Your task to perform on an android device: change the clock display to digital Image 0: 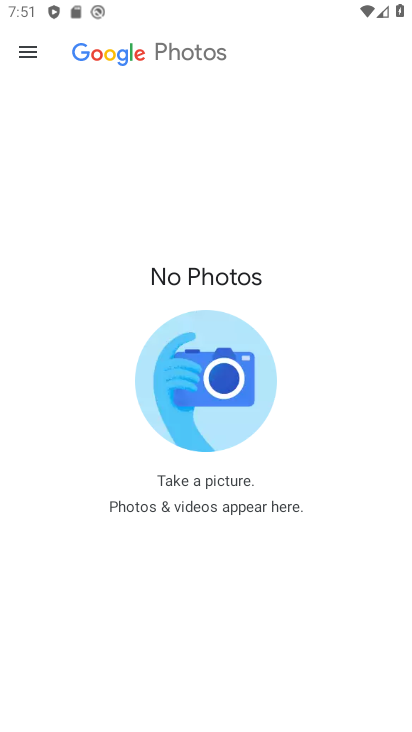
Step 0: press home button
Your task to perform on an android device: change the clock display to digital Image 1: 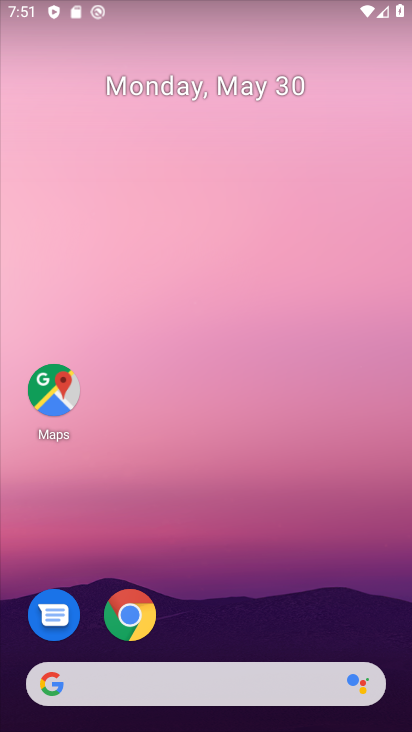
Step 1: drag from (223, 14) to (169, 334)
Your task to perform on an android device: change the clock display to digital Image 2: 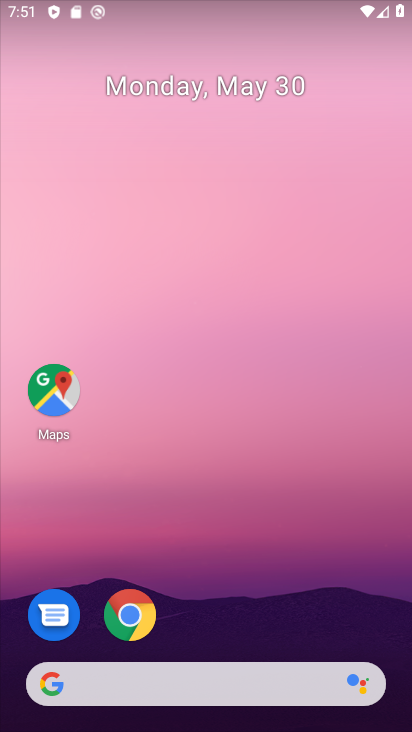
Step 2: drag from (232, 8) to (145, 519)
Your task to perform on an android device: change the clock display to digital Image 3: 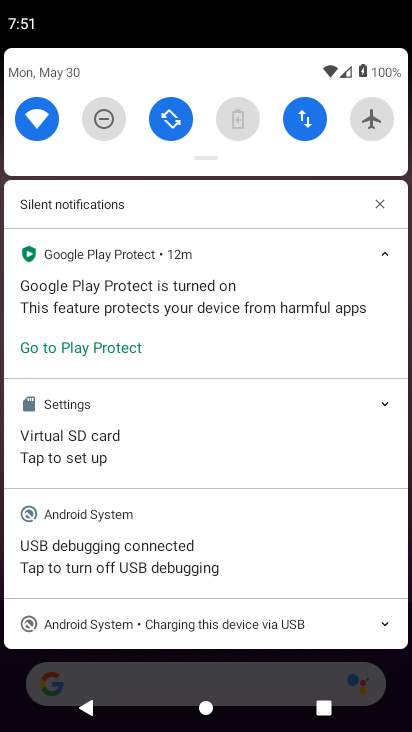
Step 3: drag from (223, 152) to (113, 553)
Your task to perform on an android device: change the clock display to digital Image 4: 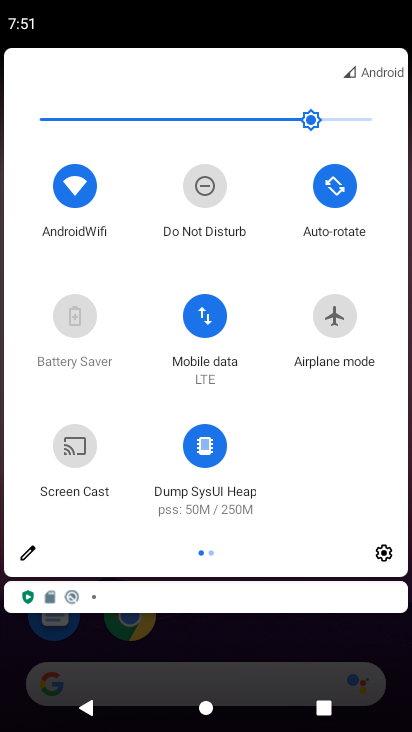
Step 4: click (384, 561)
Your task to perform on an android device: change the clock display to digital Image 5: 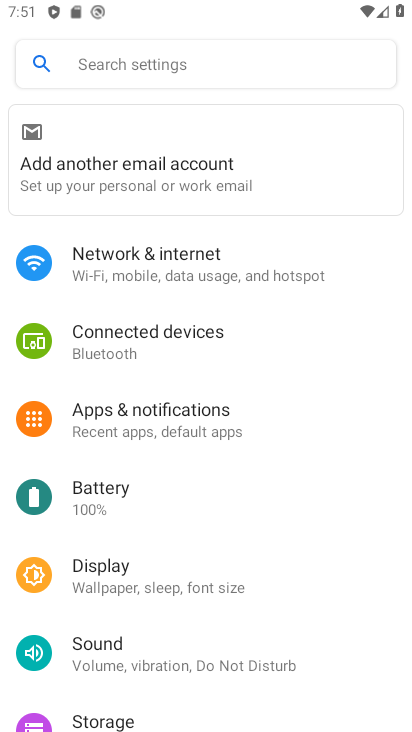
Step 5: press back button
Your task to perform on an android device: change the clock display to digital Image 6: 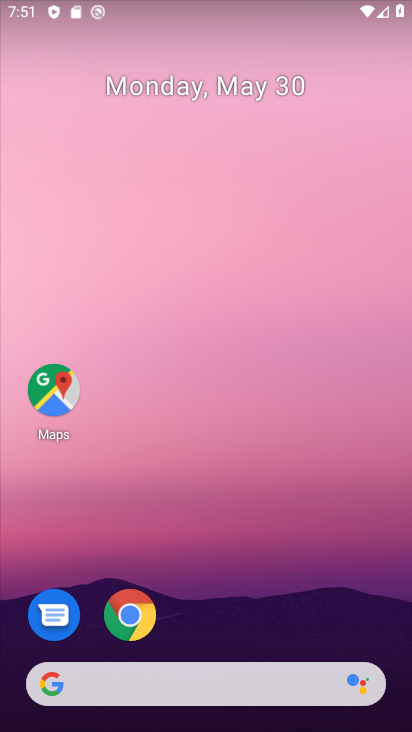
Step 6: drag from (102, 721) to (59, 71)
Your task to perform on an android device: change the clock display to digital Image 7: 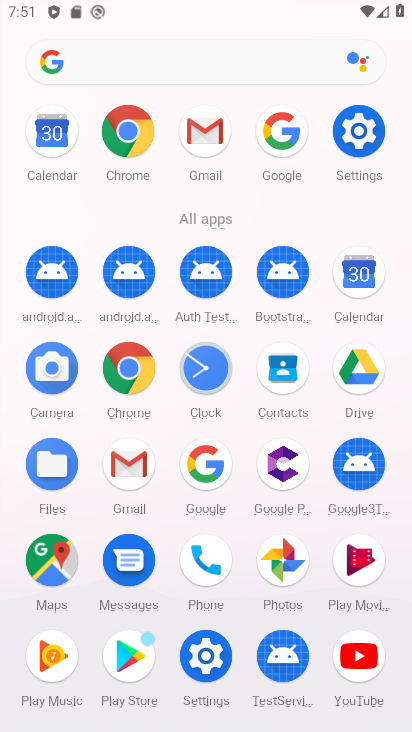
Step 7: click (205, 391)
Your task to perform on an android device: change the clock display to digital Image 8: 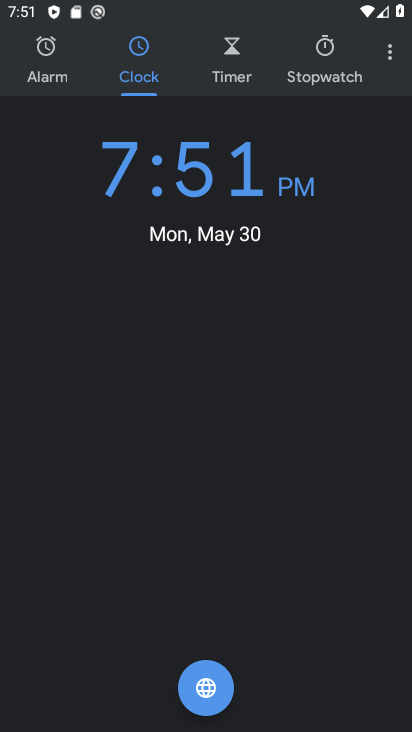
Step 8: click (382, 49)
Your task to perform on an android device: change the clock display to digital Image 9: 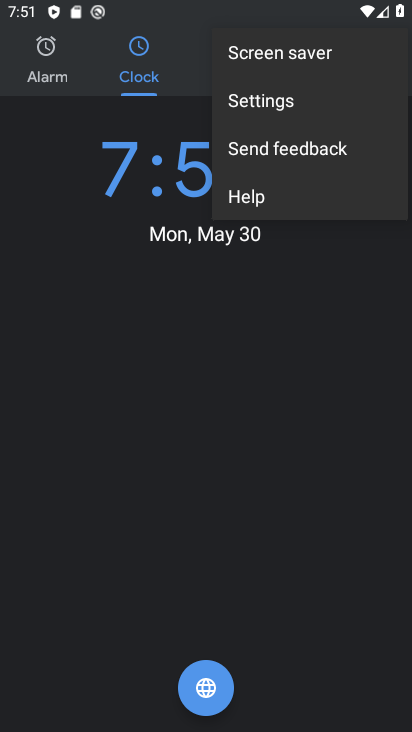
Step 9: click (300, 117)
Your task to perform on an android device: change the clock display to digital Image 10: 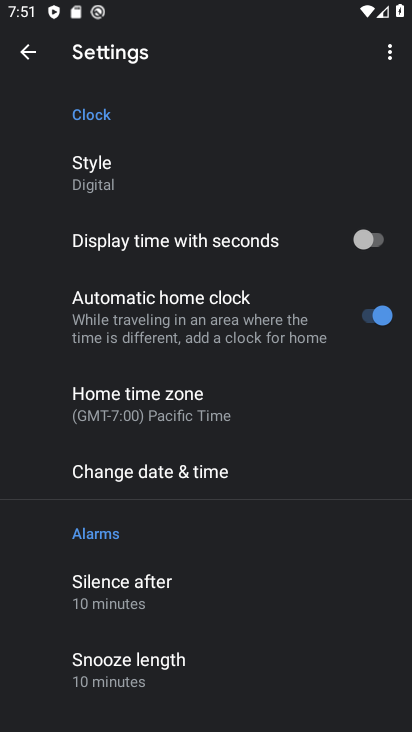
Step 10: click (188, 188)
Your task to perform on an android device: change the clock display to digital Image 11: 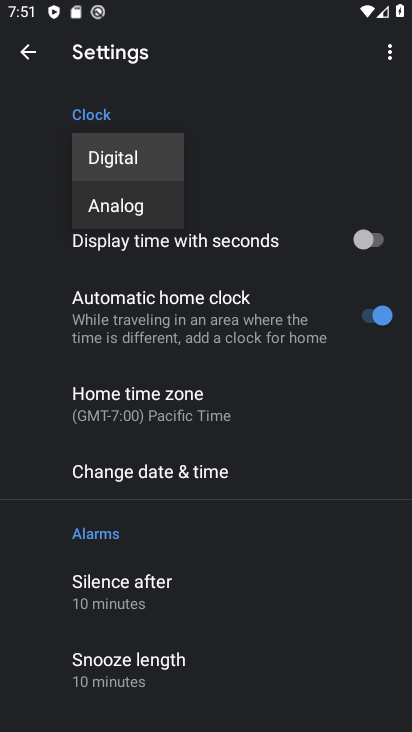
Step 11: click (188, 188)
Your task to perform on an android device: change the clock display to digital Image 12: 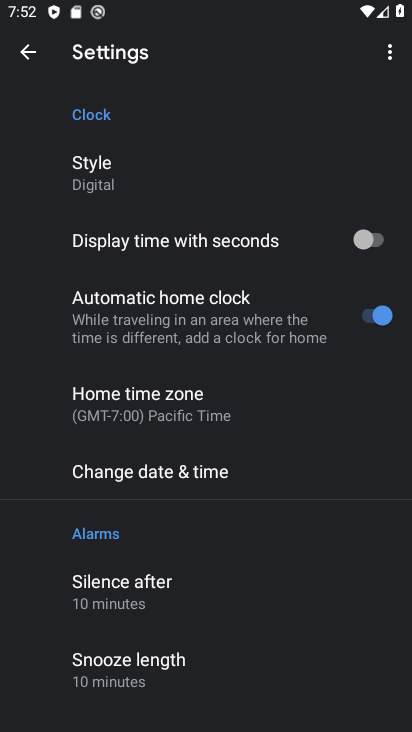
Step 12: task complete